Your task to perform on an android device: Open the calendar app, open the side menu, and click the "Day" option Image 0: 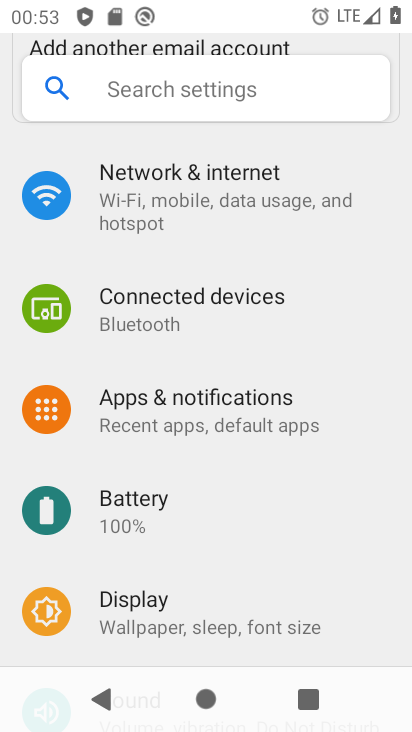
Step 0: press home button
Your task to perform on an android device: Open the calendar app, open the side menu, and click the "Day" option Image 1: 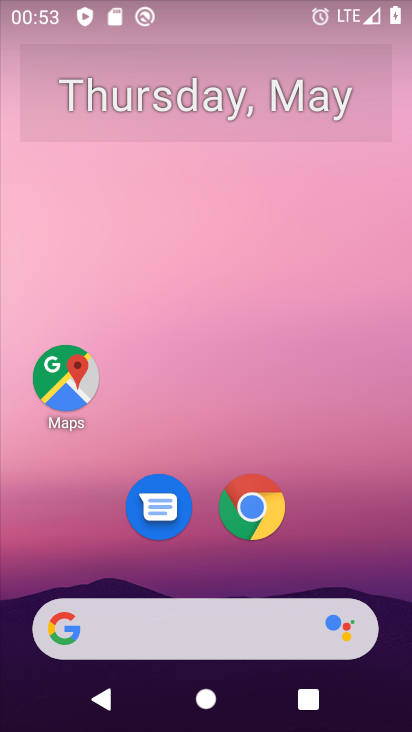
Step 1: drag from (219, 572) to (231, 236)
Your task to perform on an android device: Open the calendar app, open the side menu, and click the "Day" option Image 2: 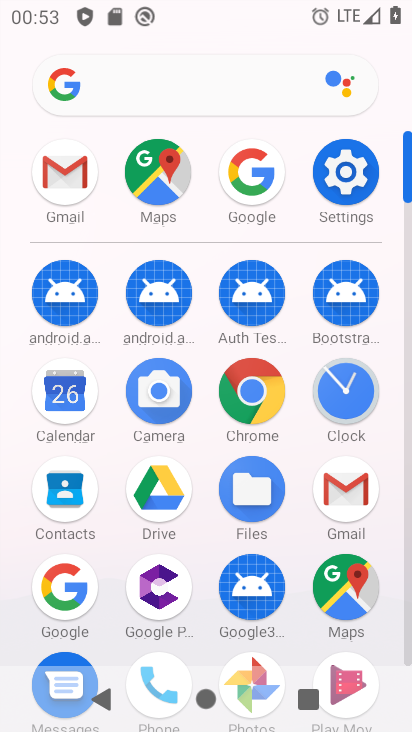
Step 2: click (70, 397)
Your task to perform on an android device: Open the calendar app, open the side menu, and click the "Day" option Image 3: 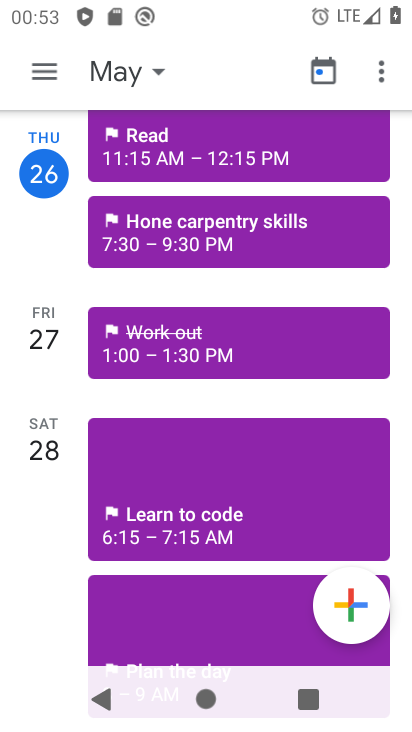
Step 3: click (50, 71)
Your task to perform on an android device: Open the calendar app, open the side menu, and click the "Day" option Image 4: 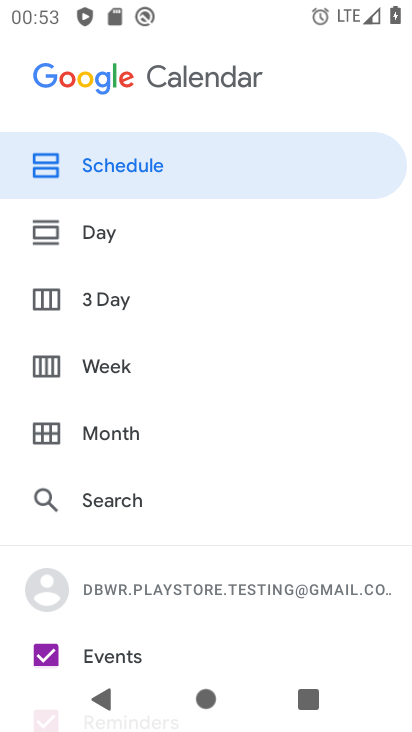
Step 4: click (156, 239)
Your task to perform on an android device: Open the calendar app, open the side menu, and click the "Day" option Image 5: 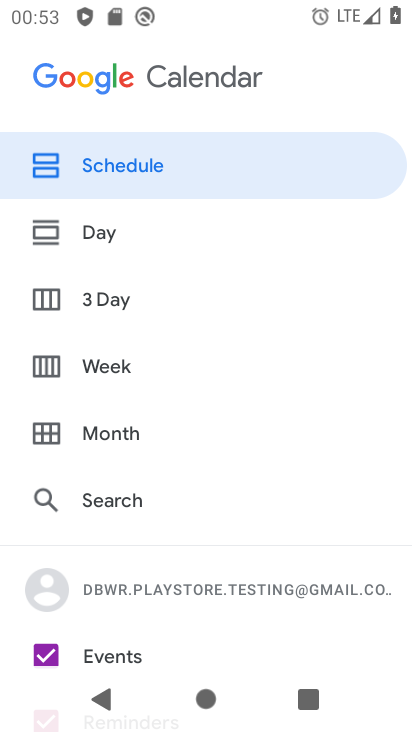
Step 5: click (104, 239)
Your task to perform on an android device: Open the calendar app, open the side menu, and click the "Day" option Image 6: 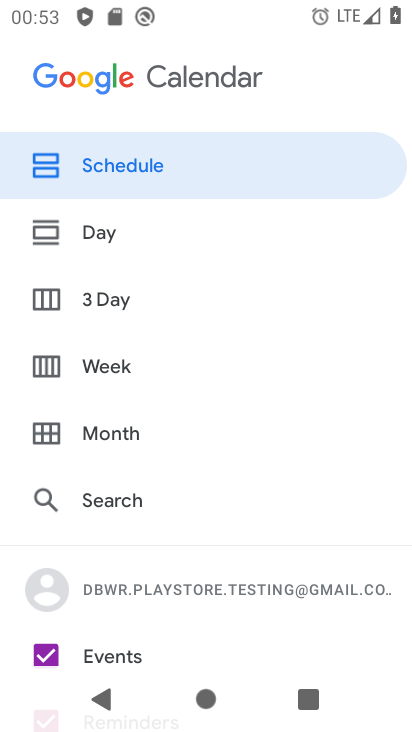
Step 6: click (104, 239)
Your task to perform on an android device: Open the calendar app, open the side menu, and click the "Day" option Image 7: 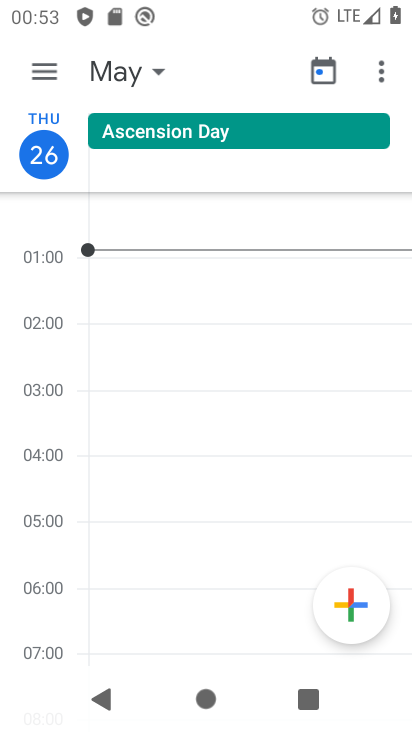
Step 7: click (54, 65)
Your task to perform on an android device: Open the calendar app, open the side menu, and click the "Day" option Image 8: 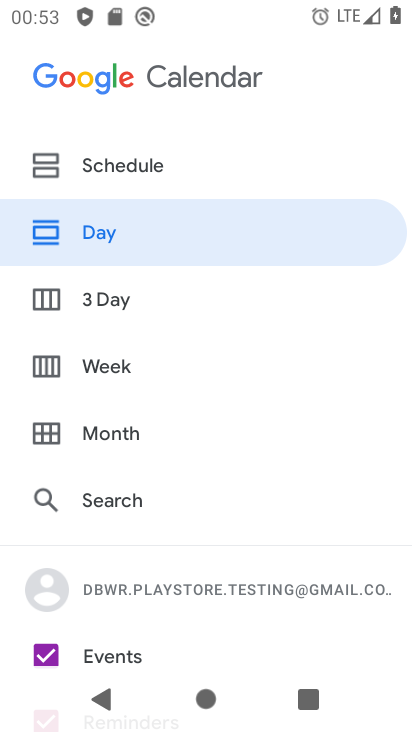
Step 8: task complete